Your task to perform on an android device: Go to internet settings Image 0: 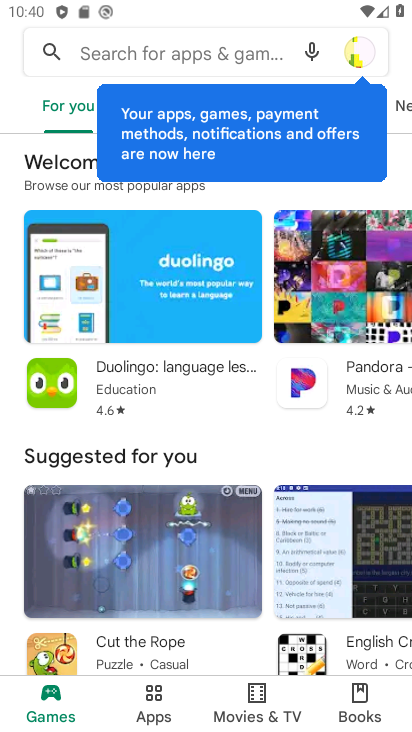
Step 0: press home button
Your task to perform on an android device: Go to internet settings Image 1: 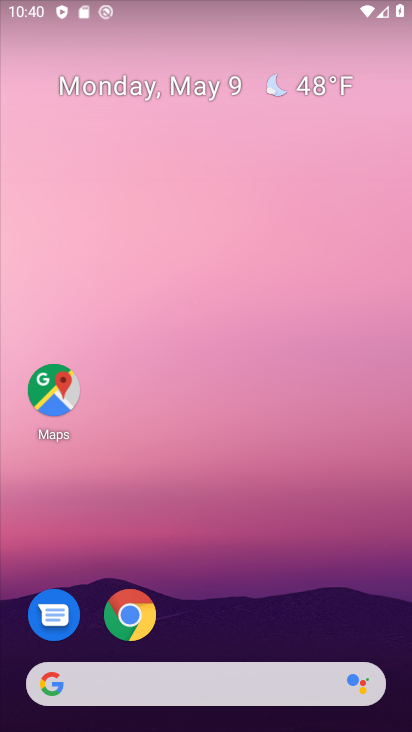
Step 1: drag from (198, 641) to (262, 39)
Your task to perform on an android device: Go to internet settings Image 2: 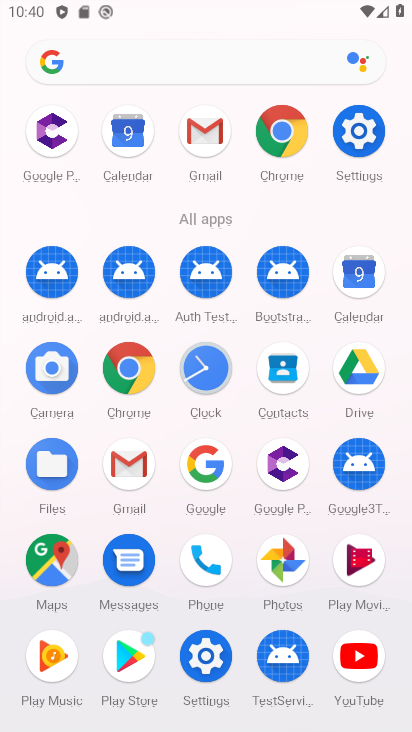
Step 2: click (352, 124)
Your task to perform on an android device: Go to internet settings Image 3: 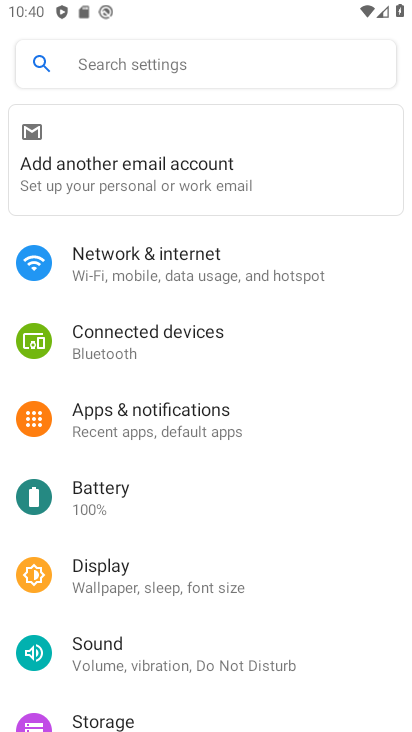
Step 3: click (161, 267)
Your task to perform on an android device: Go to internet settings Image 4: 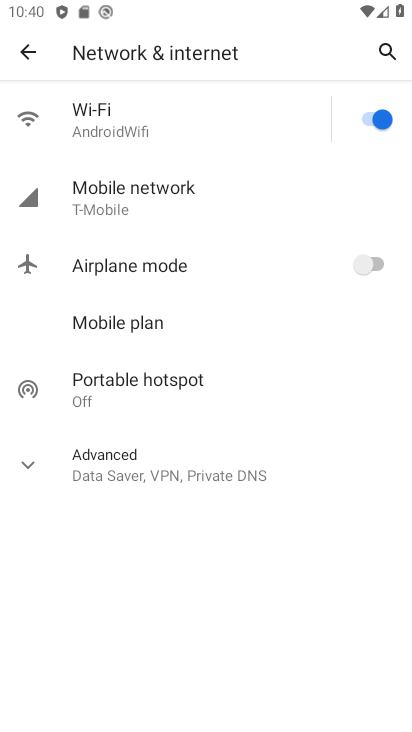
Step 4: task complete